Your task to perform on an android device: Open the calendar and show me this week's events? Image 0: 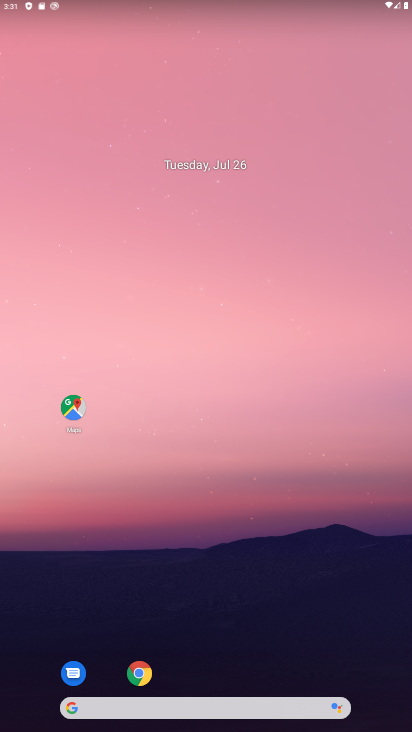
Step 0: drag from (238, 433) to (256, 167)
Your task to perform on an android device: Open the calendar and show me this week's events? Image 1: 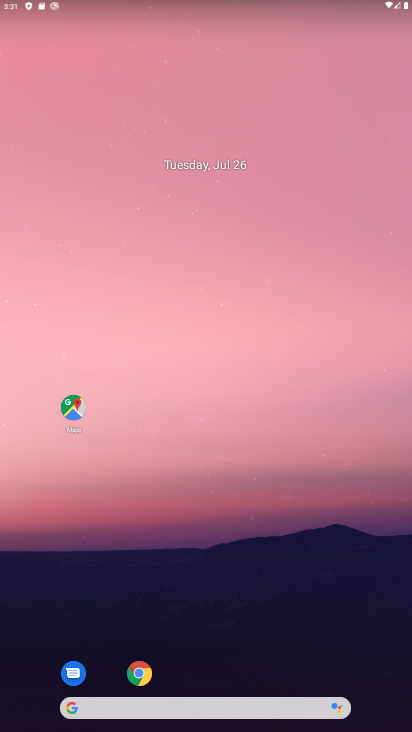
Step 1: drag from (214, 644) to (212, 25)
Your task to perform on an android device: Open the calendar and show me this week's events? Image 2: 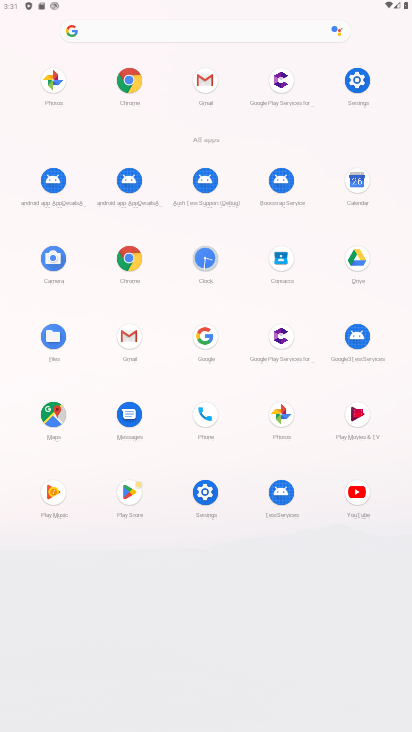
Step 2: click (354, 169)
Your task to perform on an android device: Open the calendar and show me this week's events? Image 3: 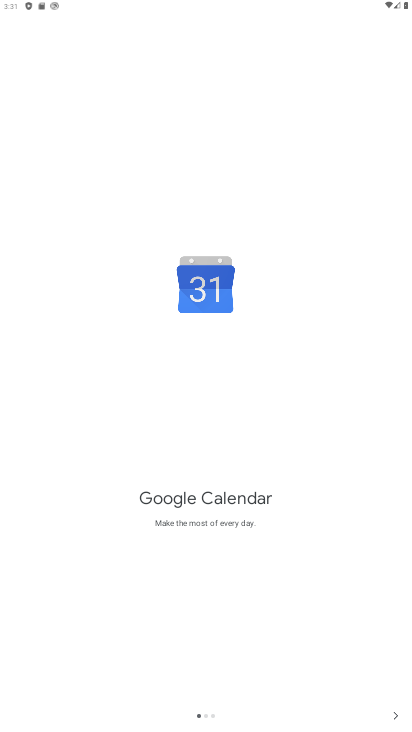
Step 3: click (395, 701)
Your task to perform on an android device: Open the calendar and show me this week's events? Image 4: 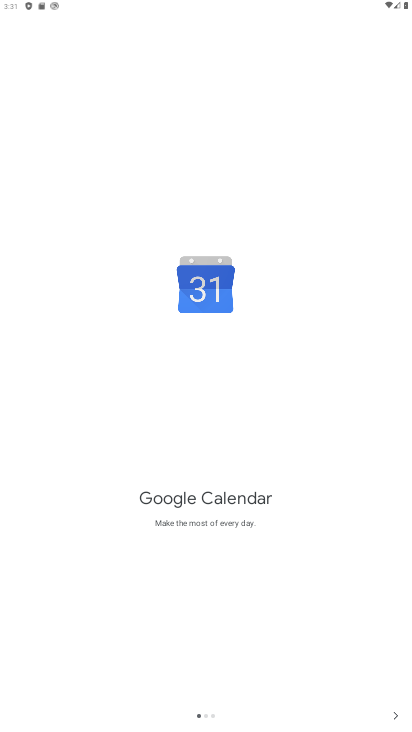
Step 4: click (396, 716)
Your task to perform on an android device: Open the calendar and show me this week's events? Image 5: 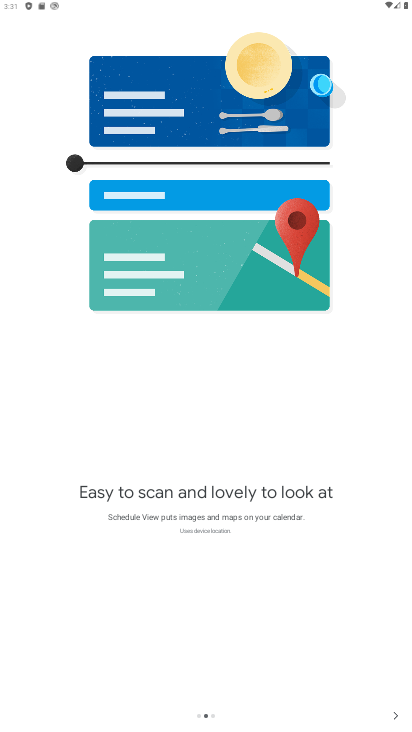
Step 5: click (396, 716)
Your task to perform on an android device: Open the calendar and show me this week's events? Image 6: 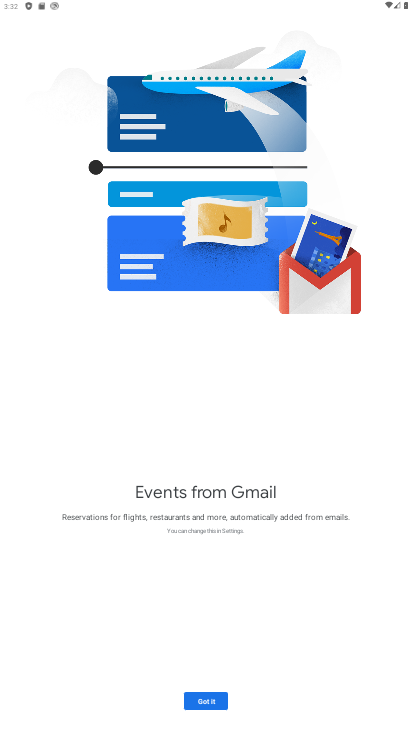
Step 6: click (192, 701)
Your task to perform on an android device: Open the calendar and show me this week's events? Image 7: 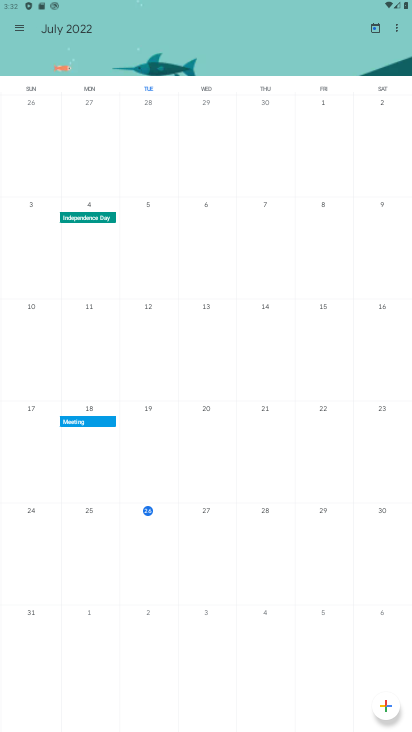
Step 7: click (7, 20)
Your task to perform on an android device: Open the calendar and show me this week's events? Image 8: 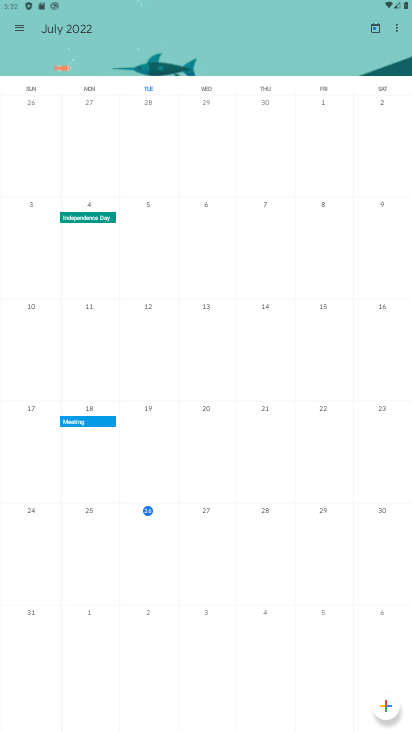
Step 8: click (17, 26)
Your task to perform on an android device: Open the calendar and show me this week's events? Image 9: 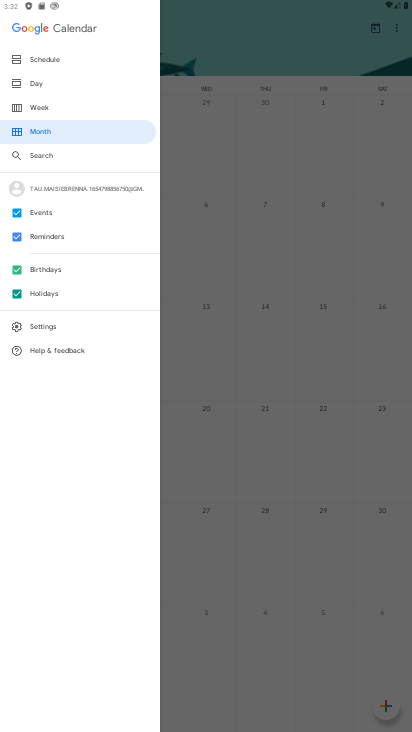
Step 9: click (34, 111)
Your task to perform on an android device: Open the calendar and show me this week's events? Image 10: 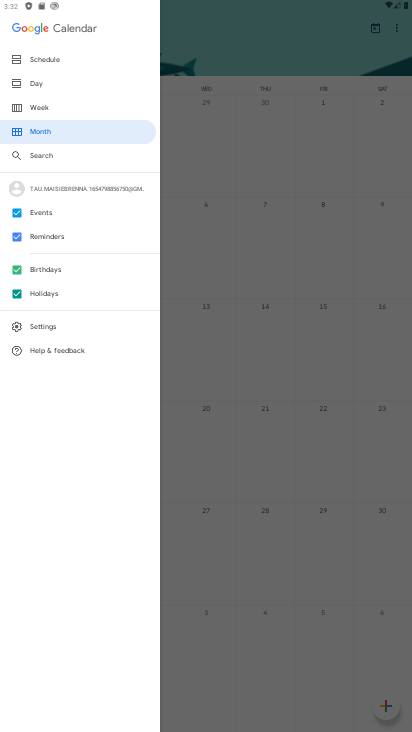
Step 10: click (34, 111)
Your task to perform on an android device: Open the calendar and show me this week's events? Image 11: 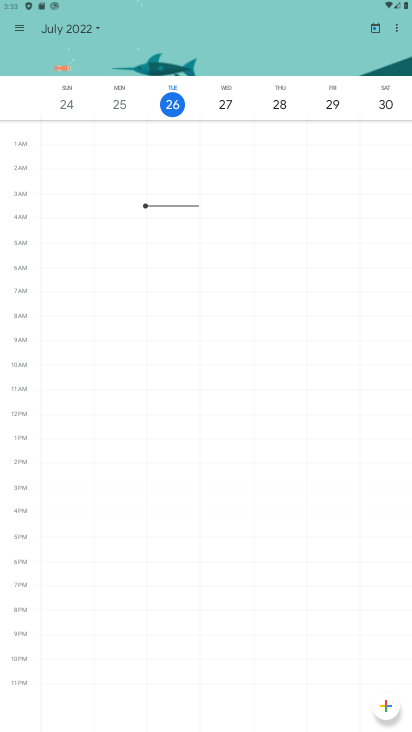
Step 11: task complete